Your task to perform on an android device: Search for vegetarian restaurants on Maps Image 0: 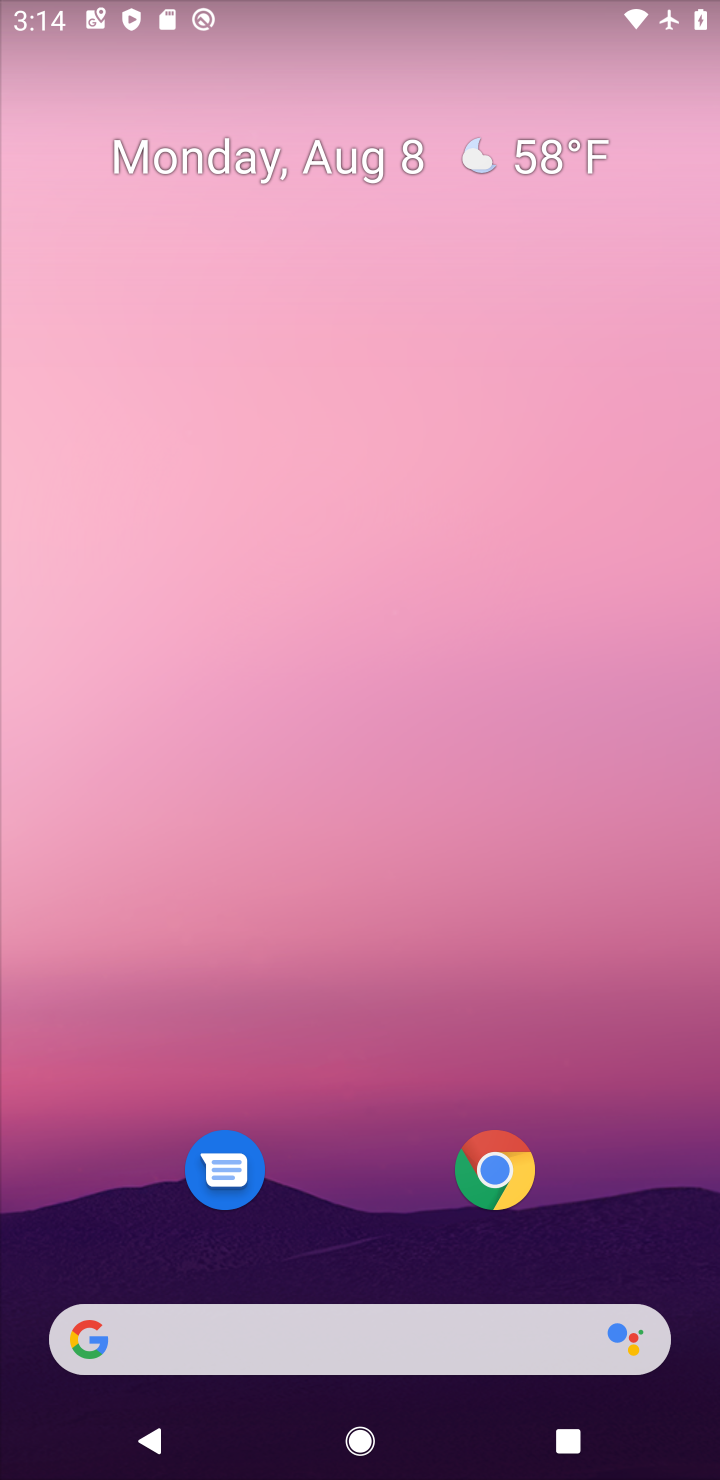
Step 0: drag from (298, 1147) to (338, 388)
Your task to perform on an android device: Search for vegetarian restaurants on Maps Image 1: 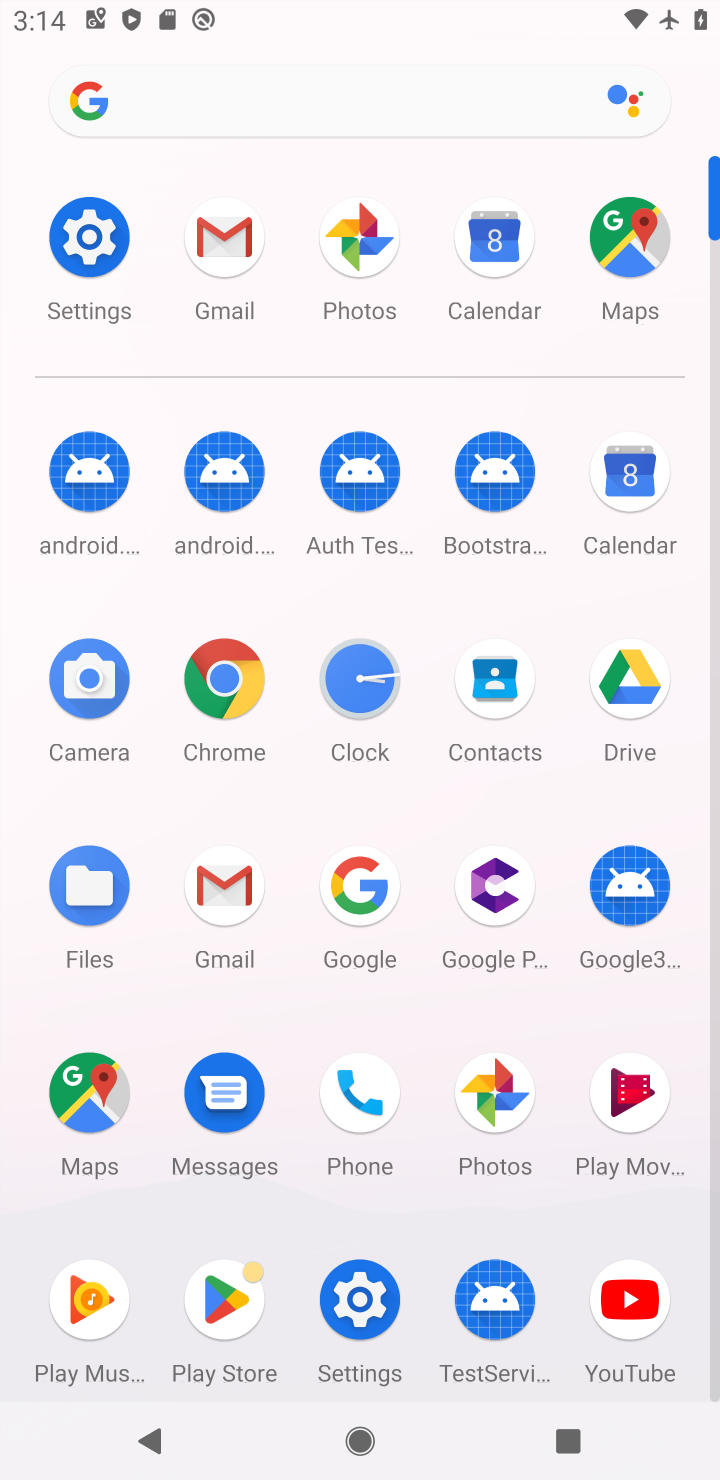
Step 1: click (612, 263)
Your task to perform on an android device: Search for vegetarian restaurants on Maps Image 2: 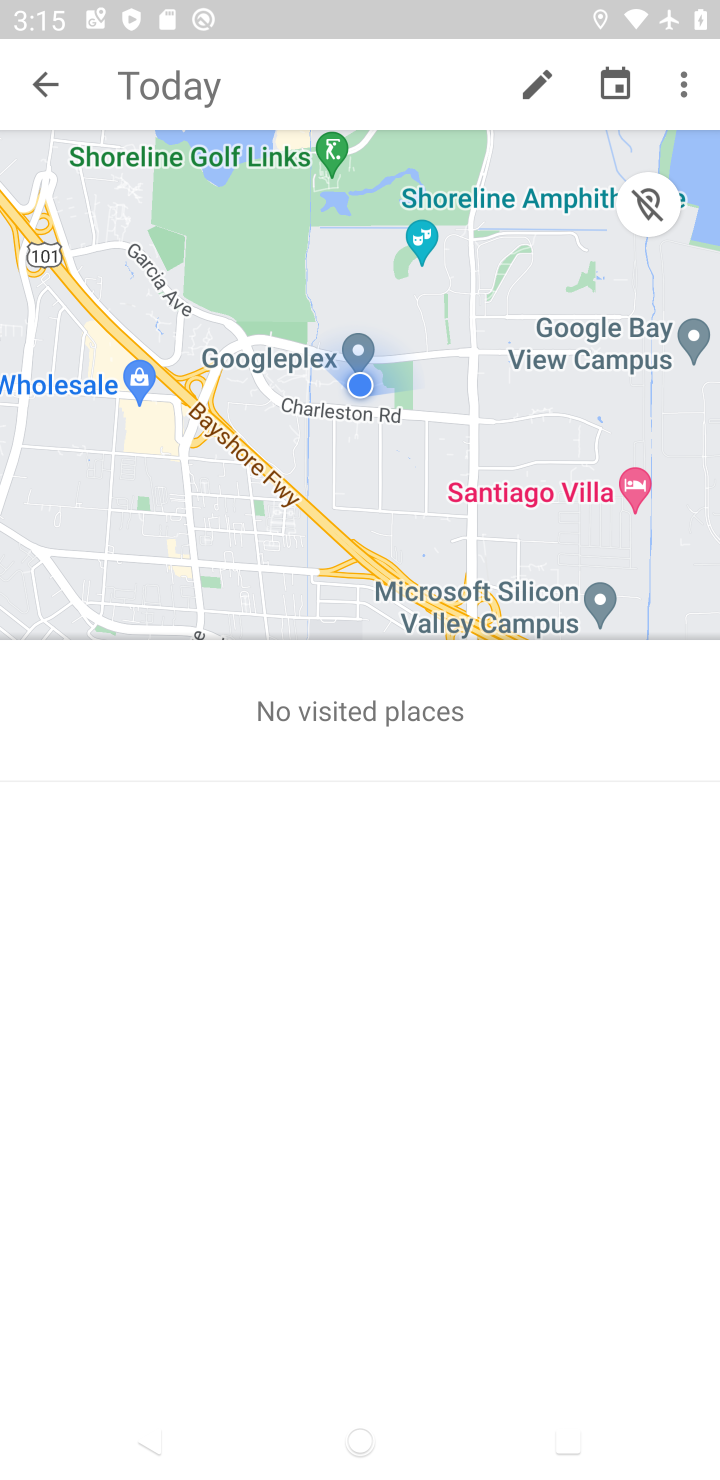
Step 2: click (35, 74)
Your task to perform on an android device: Search for vegetarian restaurants on Maps Image 3: 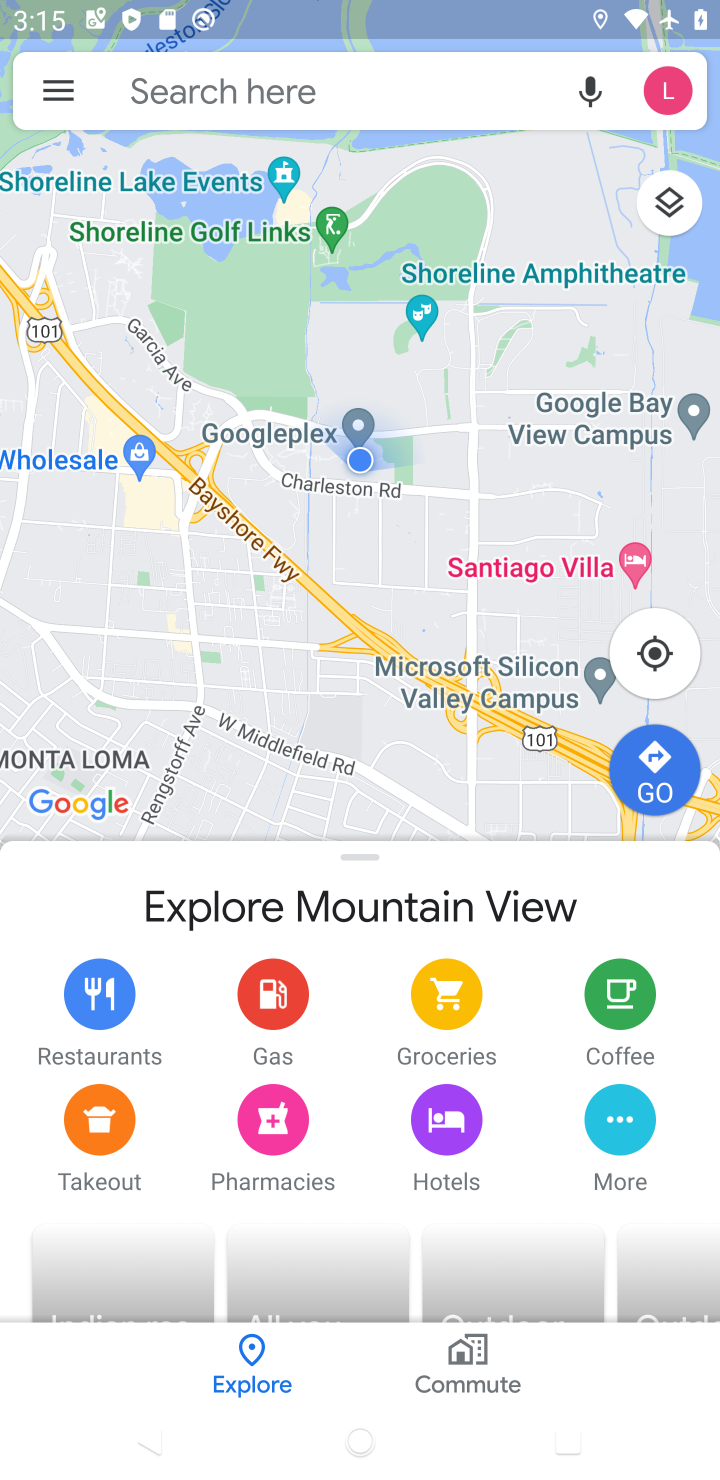
Step 3: click (307, 107)
Your task to perform on an android device: Search for vegetarian restaurants on Maps Image 4: 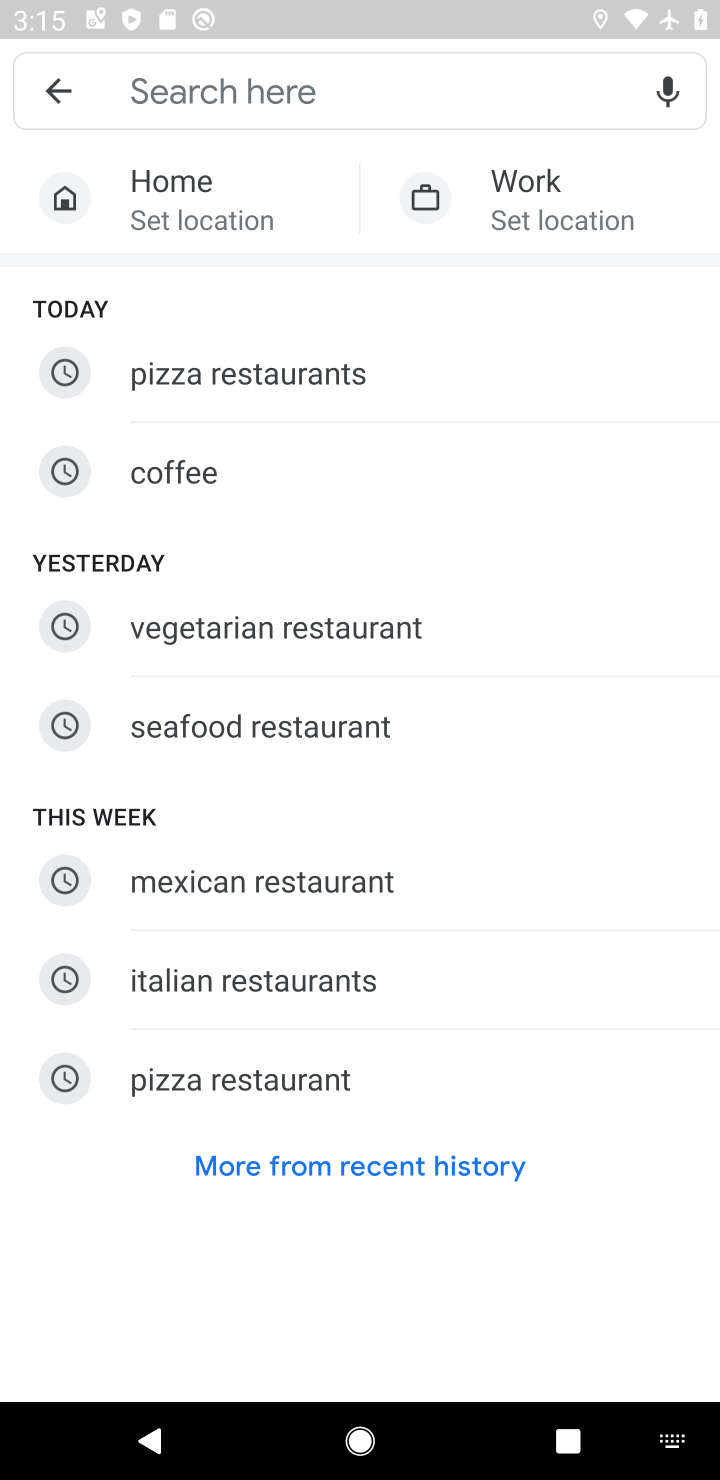
Step 4: click (299, 634)
Your task to perform on an android device: Search for vegetarian restaurants on Maps Image 5: 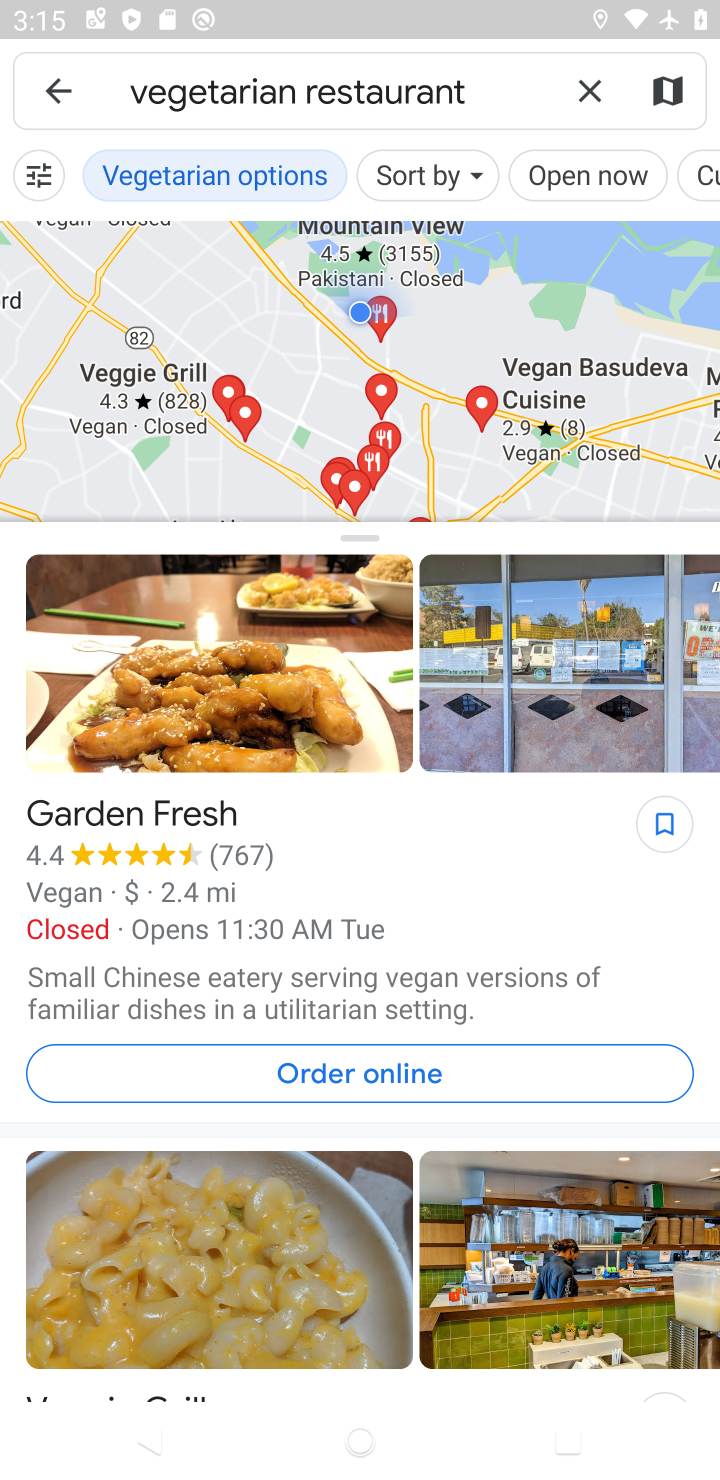
Step 5: task complete